Your task to perform on an android device: Add logitech g903 to the cart on ebay.com Image 0: 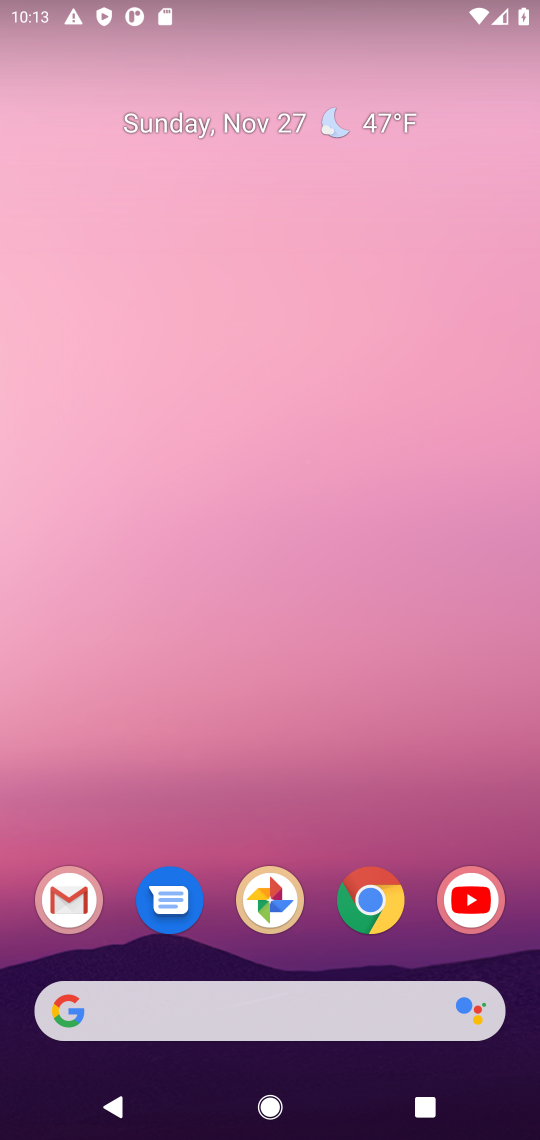
Step 0: click (372, 913)
Your task to perform on an android device: Add logitech g903 to the cart on ebay.com Image 1: 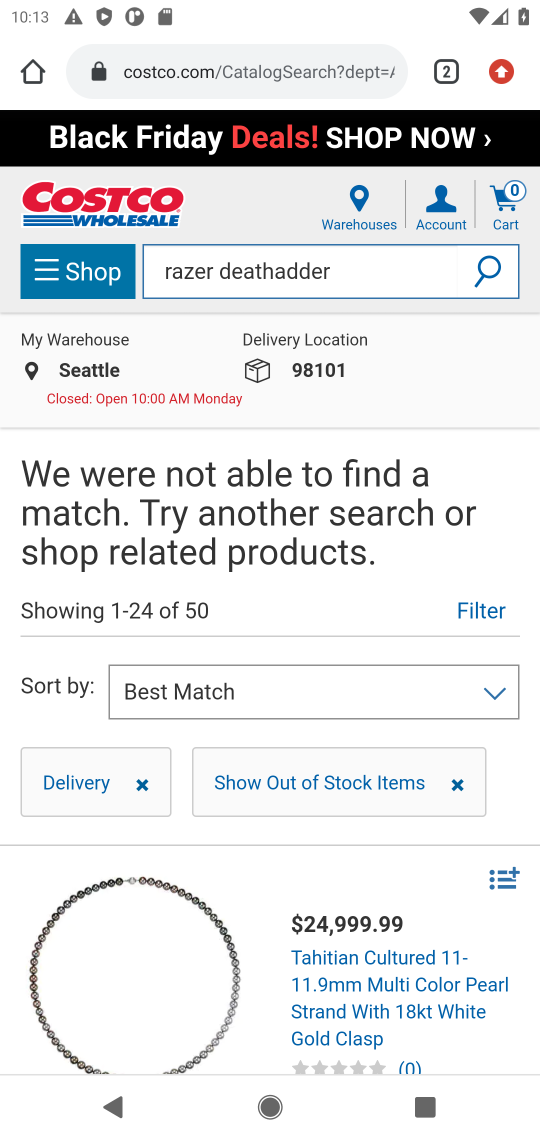
Step 1: click (212, 67)
Your task to perform on an android device: Add logitech g903 to the cart on ebay.com Image 2: 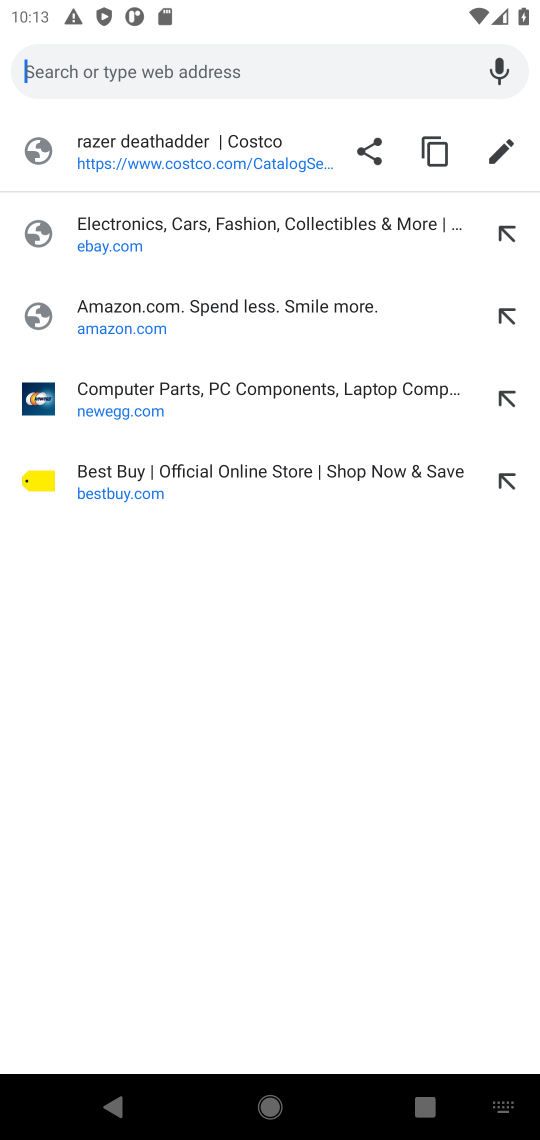
Step 2: click (97, 225)
Your task to perform on an android device: Add logitech g903 to the cart on ebay.com Image 3: 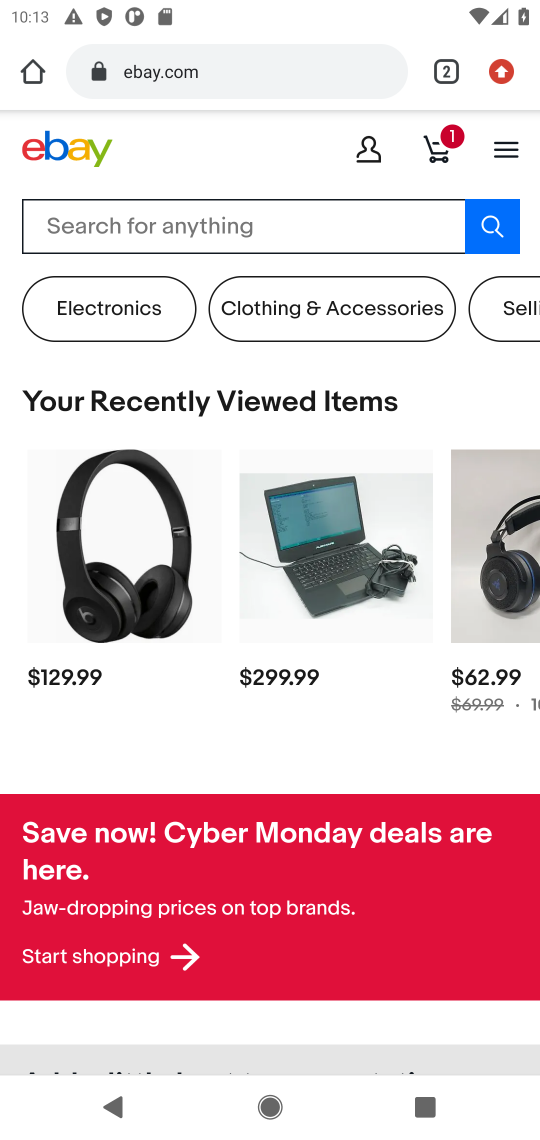
Step 3: click (88, 221)
Your task to perform on an android device: Add logitech g903 to the cart on ebay.com Image 4: 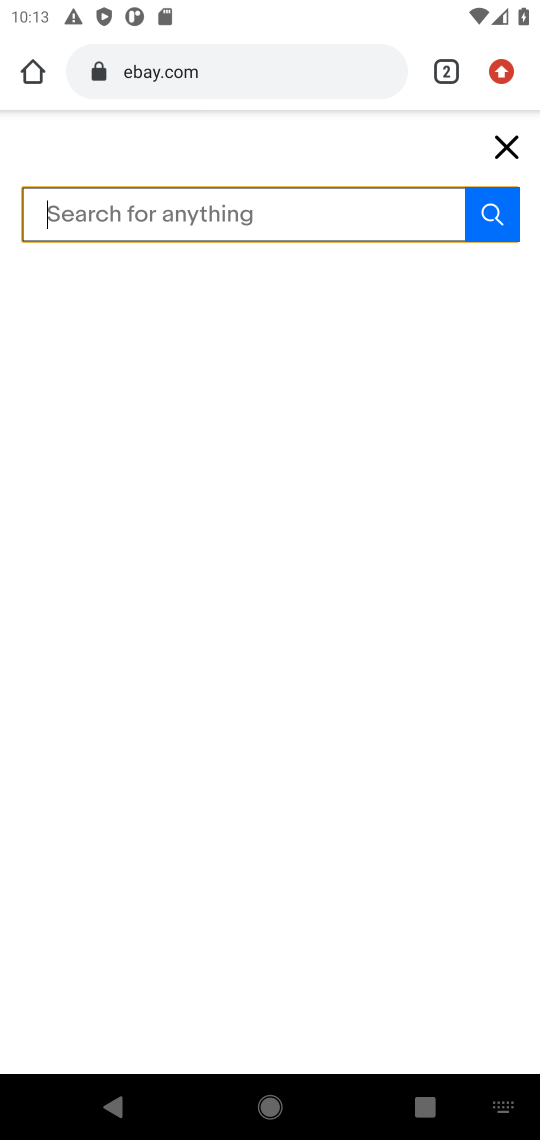
Step 4: type "logitech g903"
Your task to perform on an android device: Add logitech g903 to the cart on ebay.com Image 5: 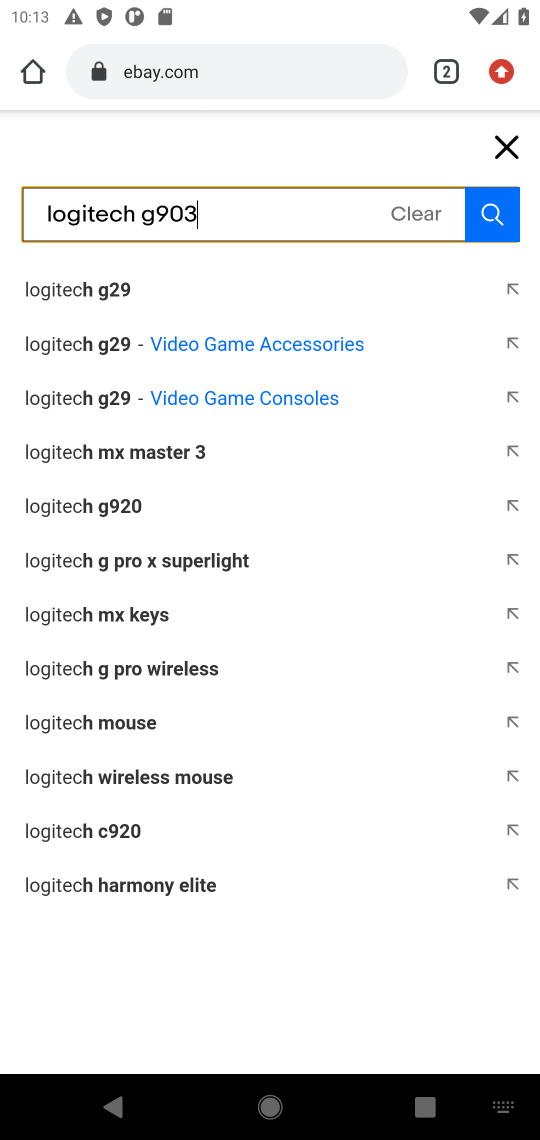
Step 5: click (502, 223)
Your task to perform on an android device: Add logitech g903 to the cart on ebay.com Image 6: 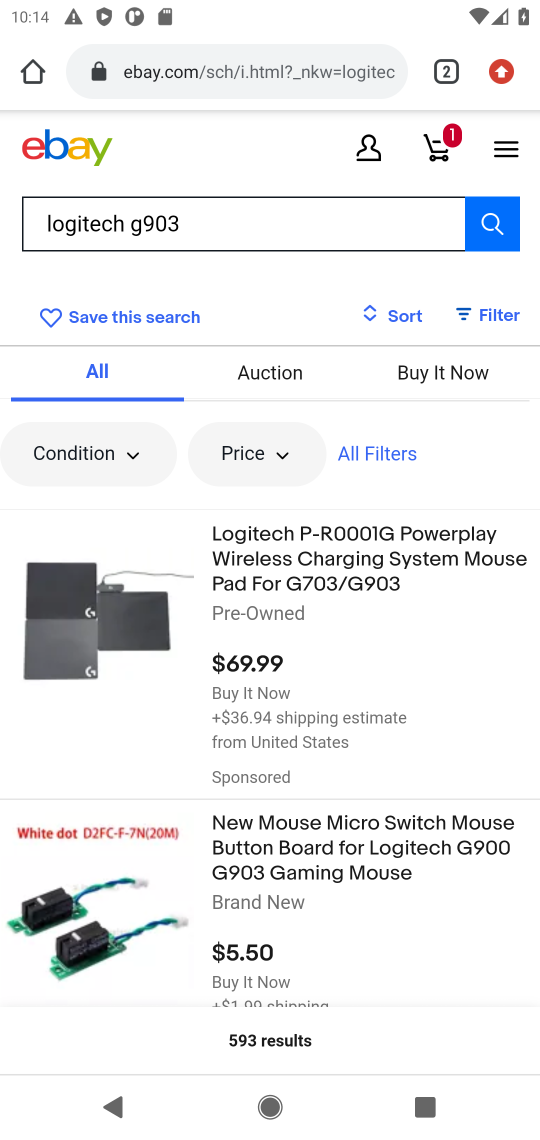
Step 6: click (95, 628)
Your task to perform on an android device: Add logitech g903 to the cart on ebay.com Image 7: 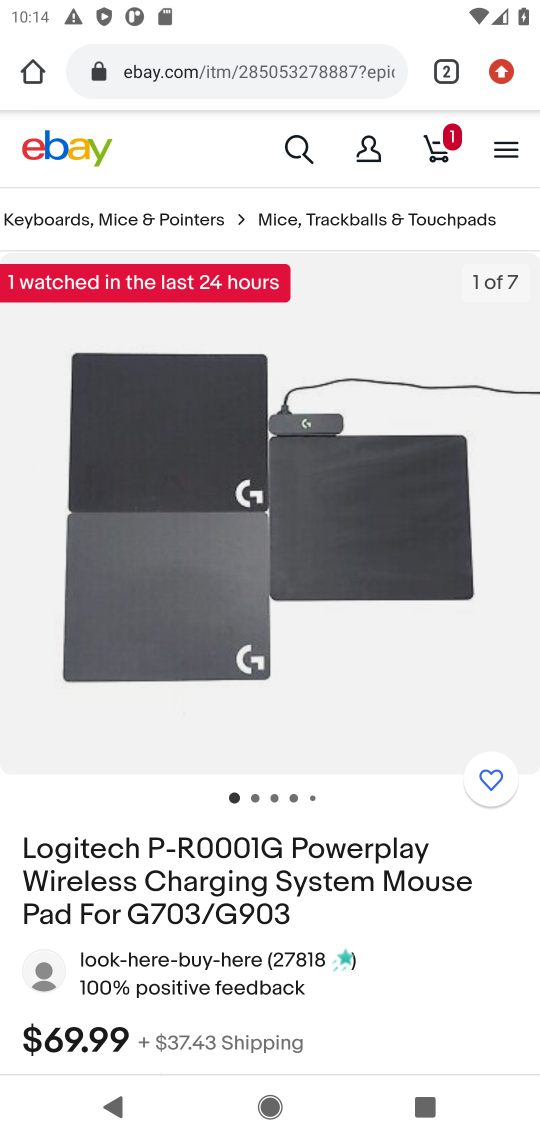
Step 7: drag from (186, 937) to (200, 634)
Your task to perform on an android device: Add logitech g903 to the cart on ebay.com Image 8: 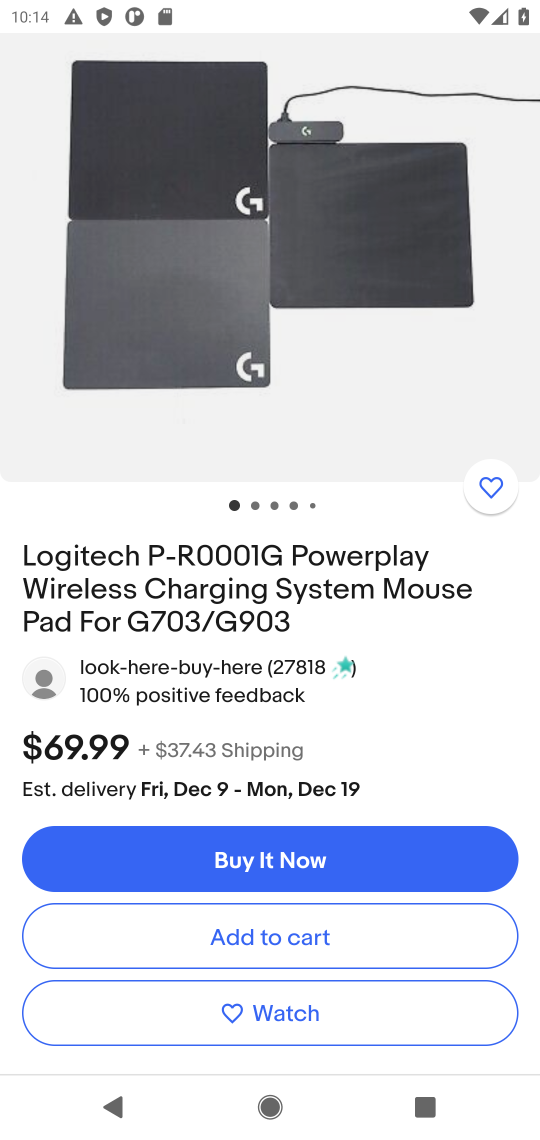
Step 8: click (234, 928)
Your task to perform on an android device: Add logitech g903 to the cart on ebay.com Image 9: 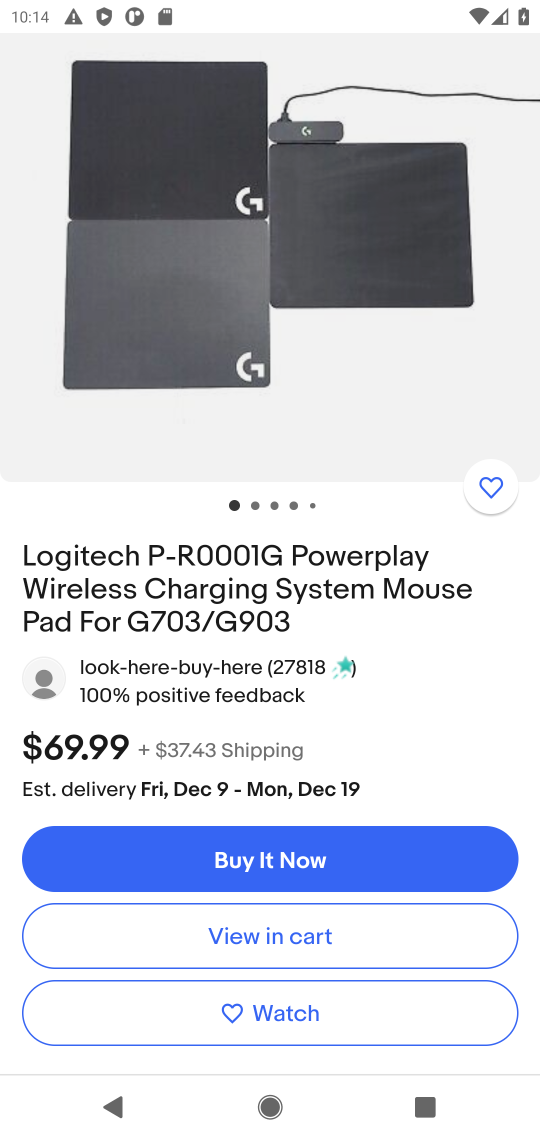
Step 9: task complete